Your task to perform on an android device: toggle improve location accuracy Image 0: 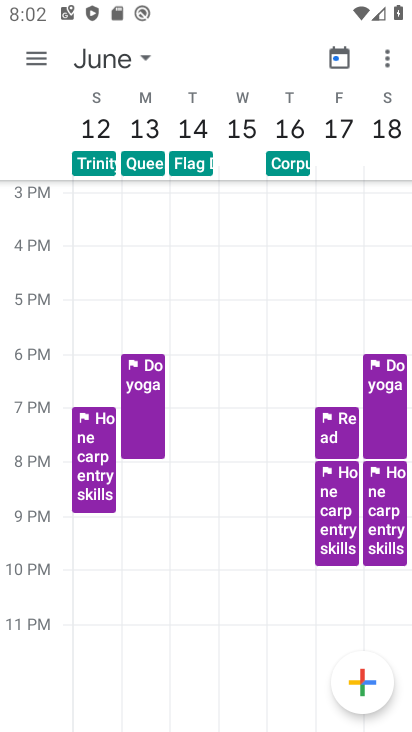
Step 0: press home button
Your task to perform on an android device: toggle improve location accuracy Image 1: 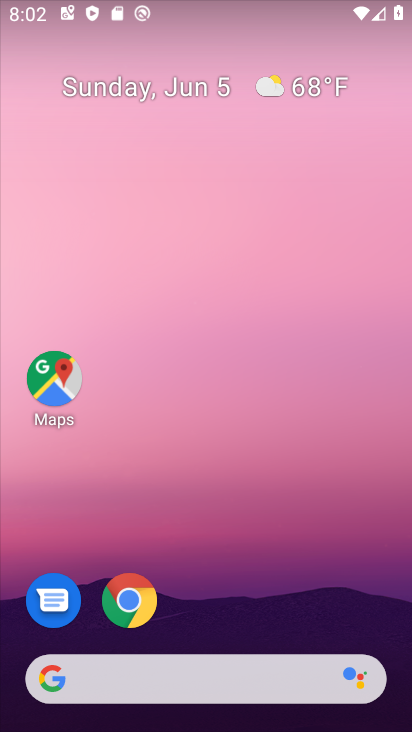
Step 1: drag from (213, 561) to (195, 35)
Your task to perform on an android device: toggle improve location accuracy Image 2: 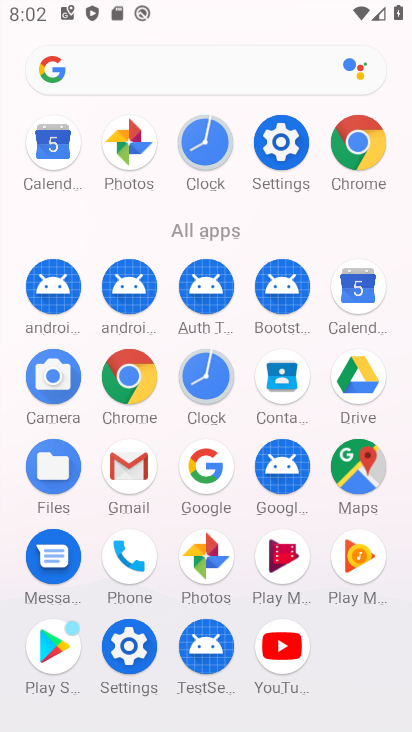
Step 2: click (277, 137)
Your task to perform on an android device: toggle improve location accuracy Image 3: 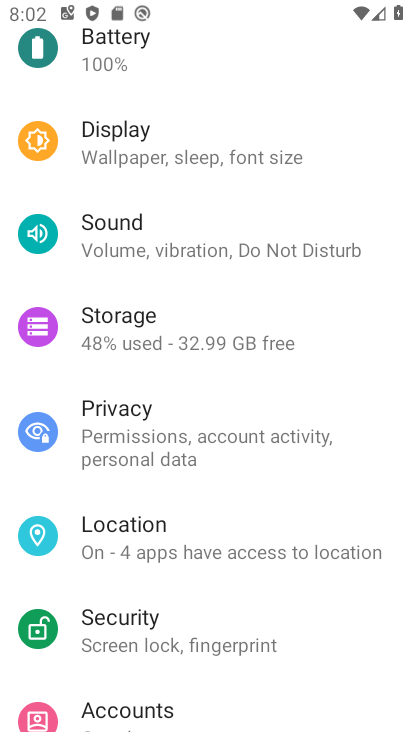
Step 3: click (208, 526)
Your task to perform on an android device: toggle improve location accuracy Image 4: 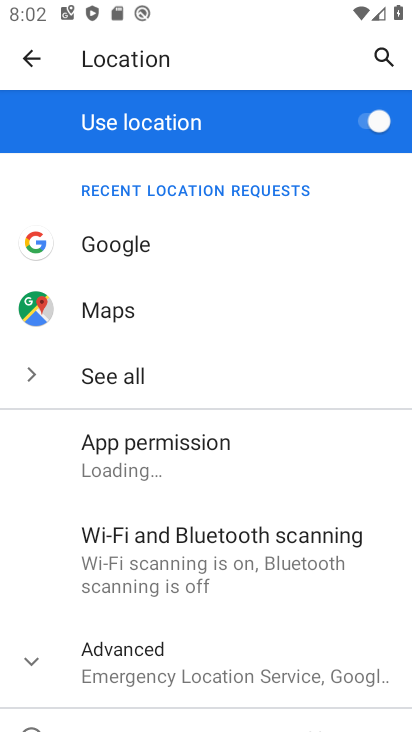
Step 4: click (33, 659)
Your task to perform on an android device: toggle improve location accuracy Image 5: 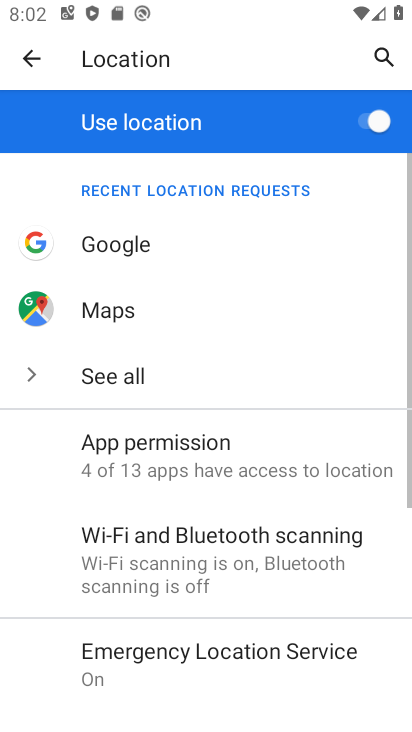
Step 5: drag from (277, 561) to (269, 241)
Your task to perform on an android device: toggle improve location accuracy Image 6: 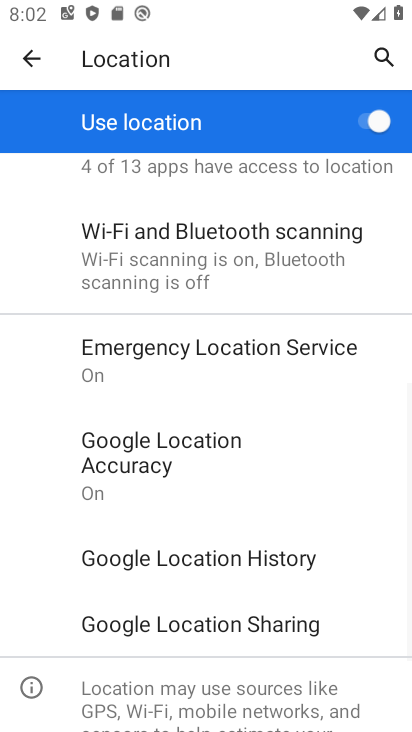
Step 6: click (197, 445)
Your task to perform on an android device: toggle improve location accuracy Image 7: 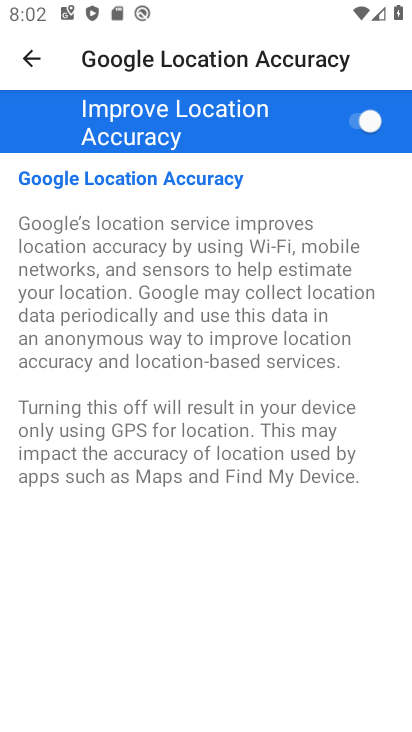
Step 7: click (367, 117)
Your task to perform on an android device: toggle improve location accuracy Image 8: 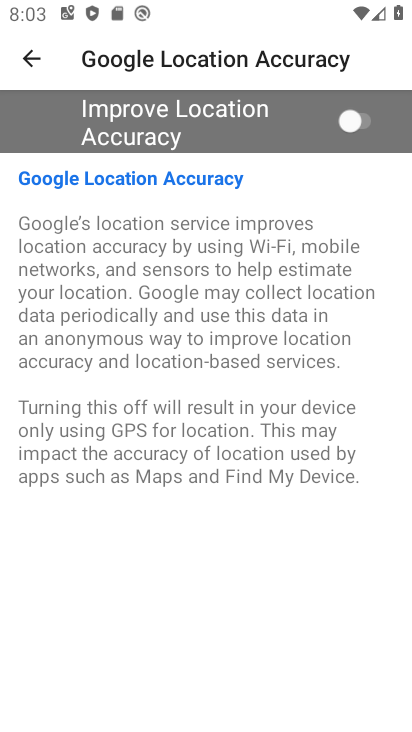
Step 8: task complete